Your task to perform on an android device: Turn off the flashlight Image 0: 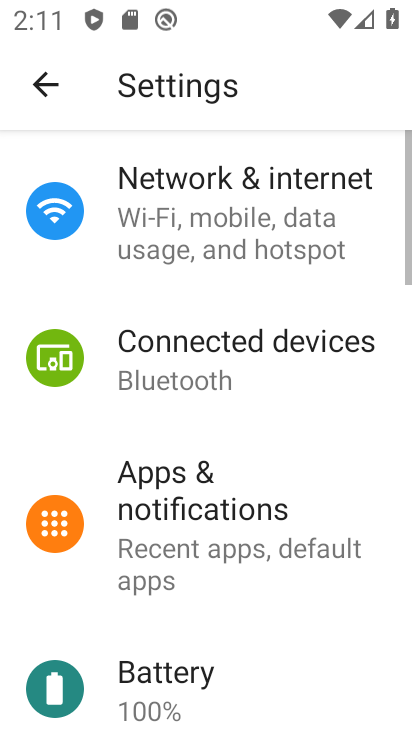
Step 0: drag from (205, 264) to (206, 706)
Your task to perform on an android device: Turn off the flashlight Image 1: 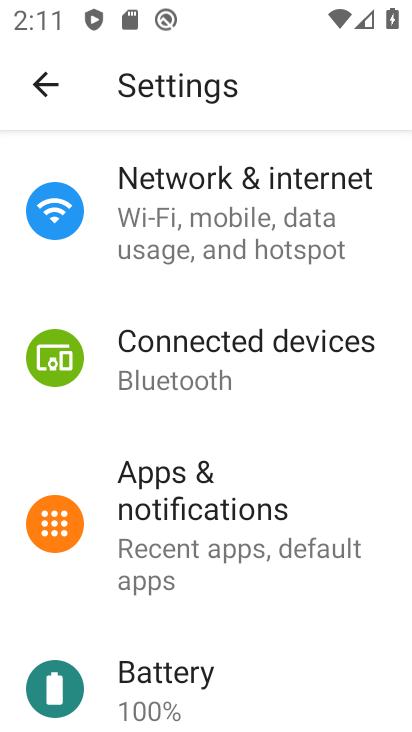
Step 1: click (61, 80)
Your task to perform on an android device: Turn off the flashlight Image 2: 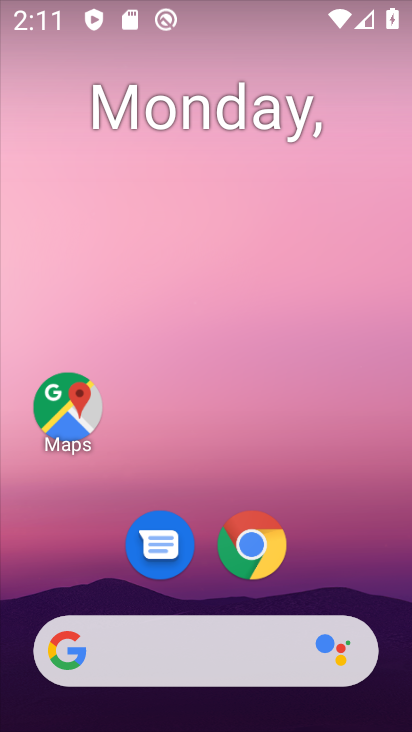
Step 2: drag from (213, 572) to (261, 157)
Your task to perform on an android device: Turn off the flashlight Image 3: 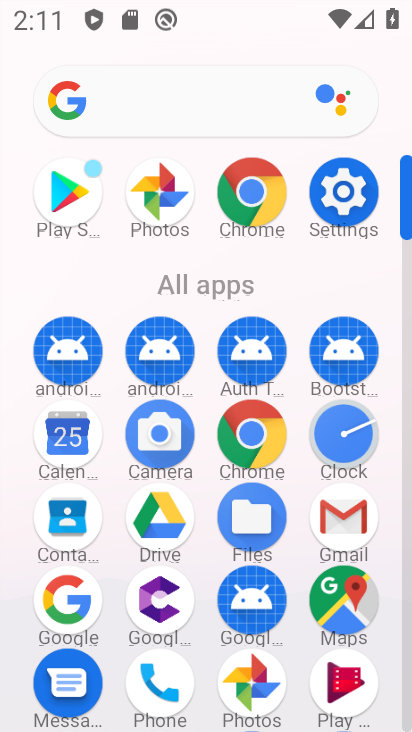
Step 3: click (357, 186)
Your task to perform on an android device: Turn off the flashlight Image 4: 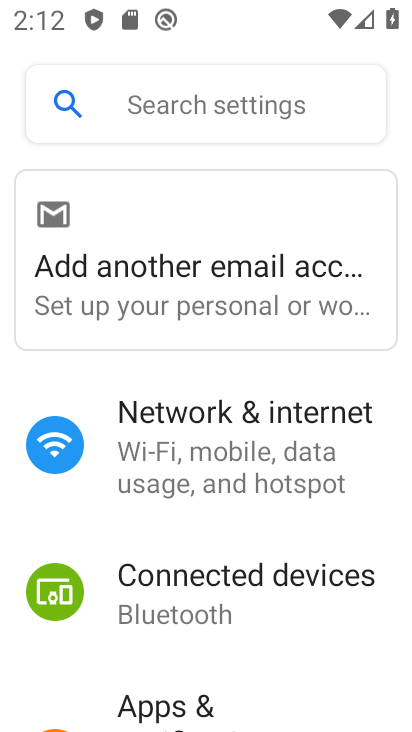
Step 4: click (174, 110)
Your task to perform on an android device: Turn off the flashlight Image 5: 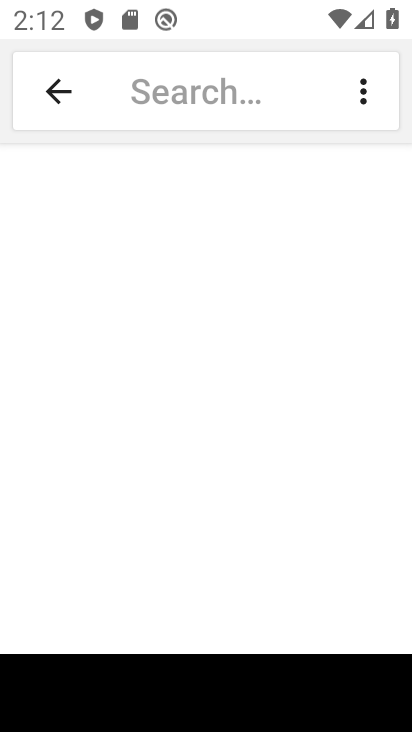
Step 5: type "flashlight"
Your task to perform on an android device: Turn off the flashlight Image 6: 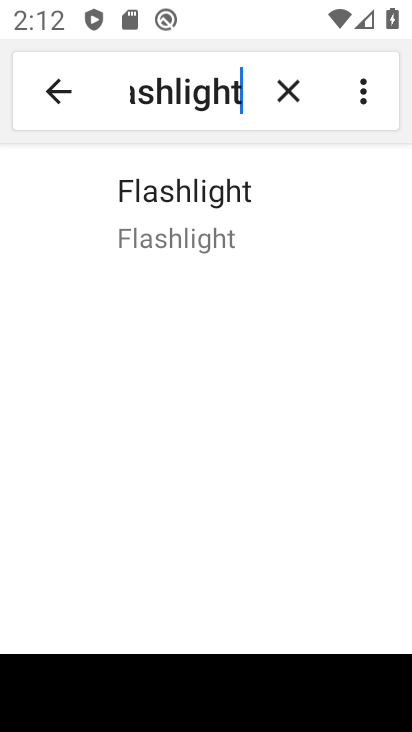
Step 6: click (188, 208)
Your task to perform on an android device: Turn off the flashlight Image 7: 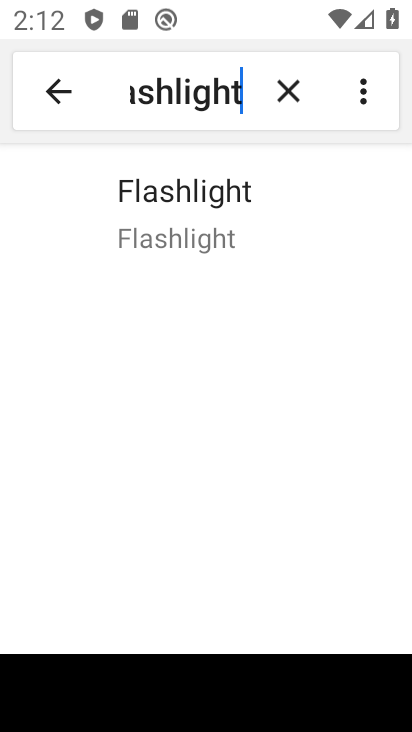
Step 7: task complete